Your task to perform on an android device: set default search engine in the chrome app Image 0: 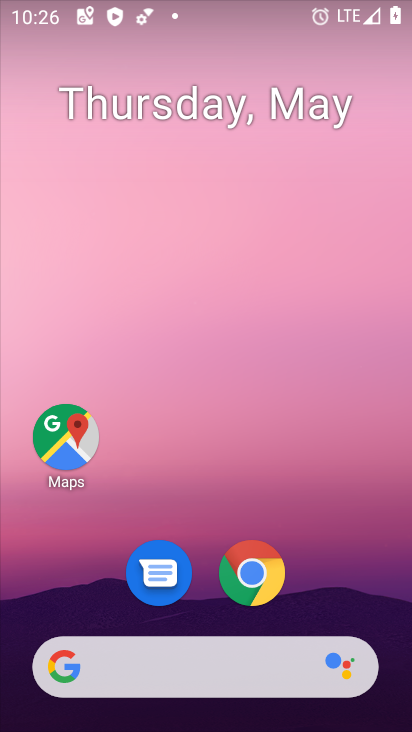
Step 0: click (250, 598)
Your task to perform on an android device: set default search engine in the chrome app Image 1: 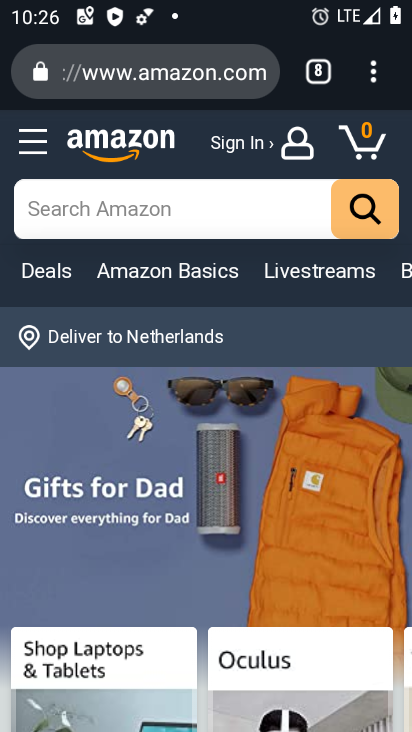
Step 1: drag from (364, 74) to (125, 560)
Your task to perform on an android device: set default search engine in the chrome app Image 2: 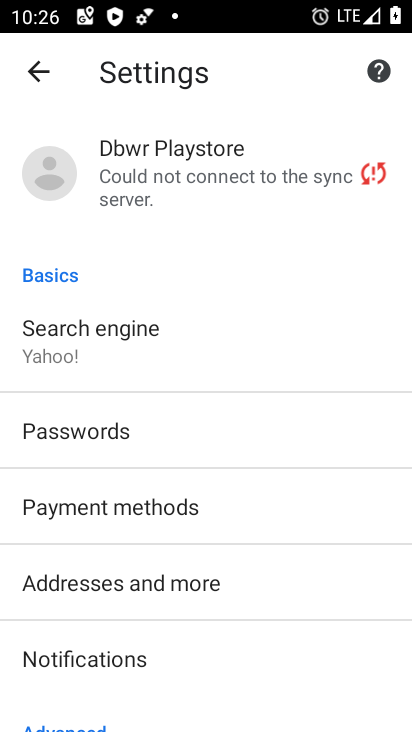
Step 2: click (121, 364)
Your task to perform on an android device: set default search engine in the chrome app Image 3: 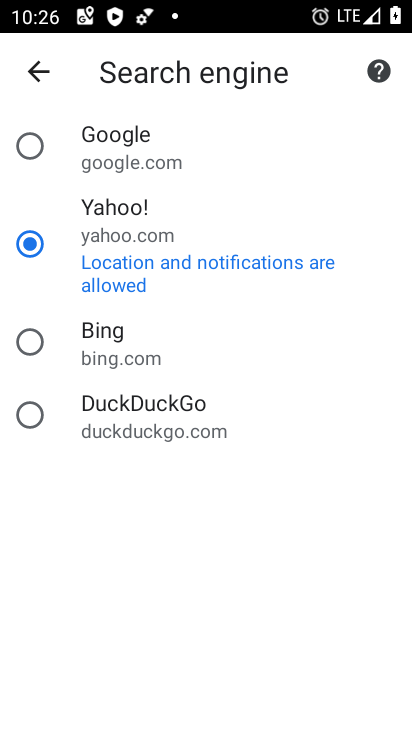
Step 3: click (103, 152)
Your task to perform on an android device: set default search engine in the chrome app Image 4: 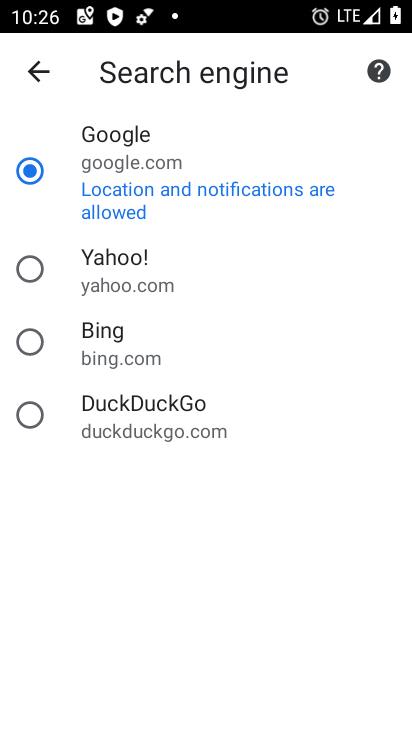
Step 4: task complete